Your task to perform on an android device: Show me productivity apps on the Play Store Image 0: 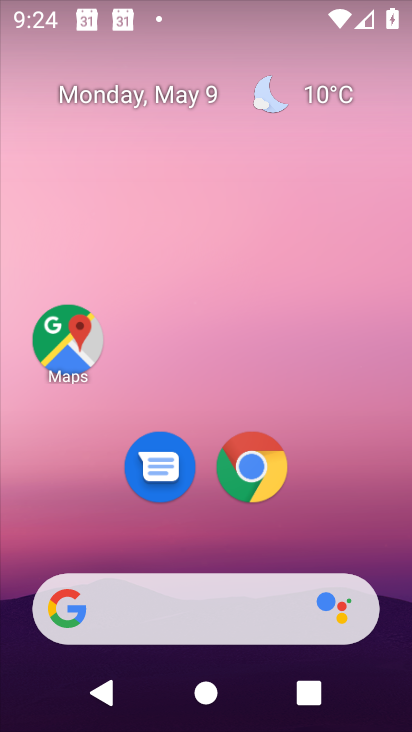
Step 0: drag from (365, 558) to (344, 31)
Your task to perform on an android device: Show me productivity apps on the Play Store Image 1: 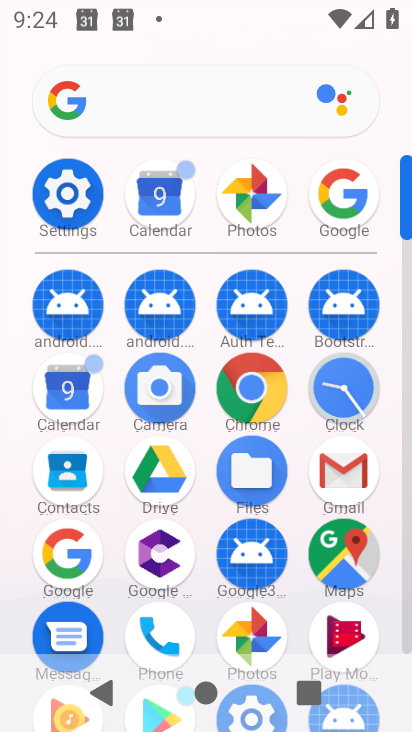
Step 1: click (408, 538)
Your task to perform on an android device: Show me productivity apps on the Play Store Image 2: 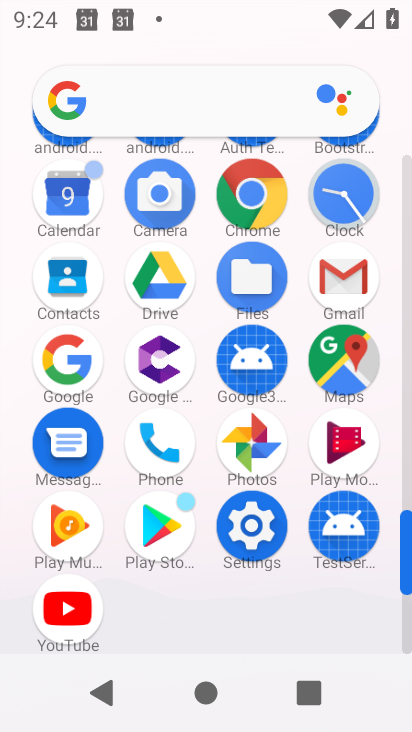
Step 2: click (158, 528)
Your task to perform on an android device: Show me productivity apps on the Play Store Image 3: 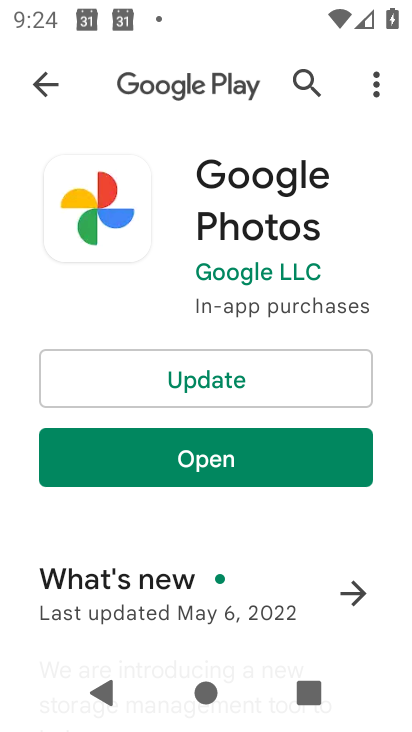
Step 3: click (34, 87)
Your task to perform on an android device: Show me productivity apps on the Play Store Image 4: 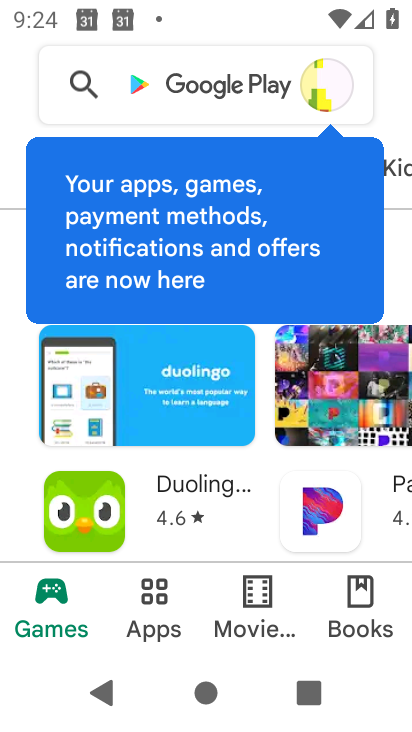
Step 4: click (144, 620)
Your task to perform on an android device: Show me productivity apps on the Play Store Image 5: 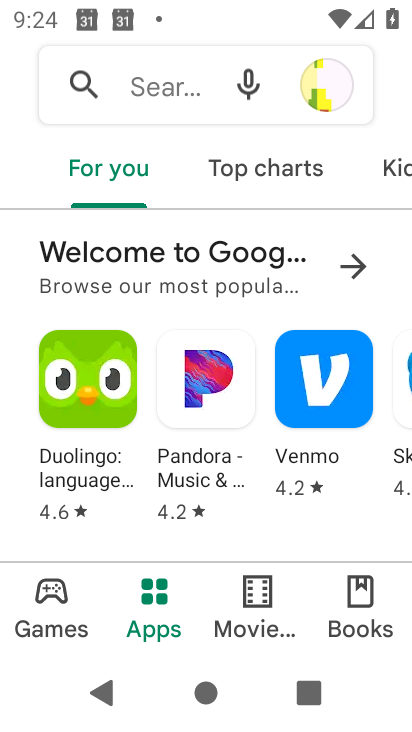
Step 5: drag from (324, 166) to (0, 249)
Your task to perform on an android device: Show me productivity apps on the Play Store Image 6: 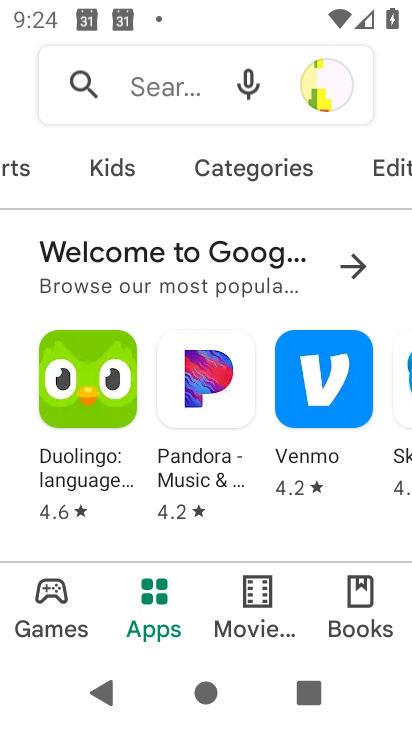
Step 6: click (259, 174)
Your task to perform on an android device: Show me productivity apps on the Play Store Image 7: 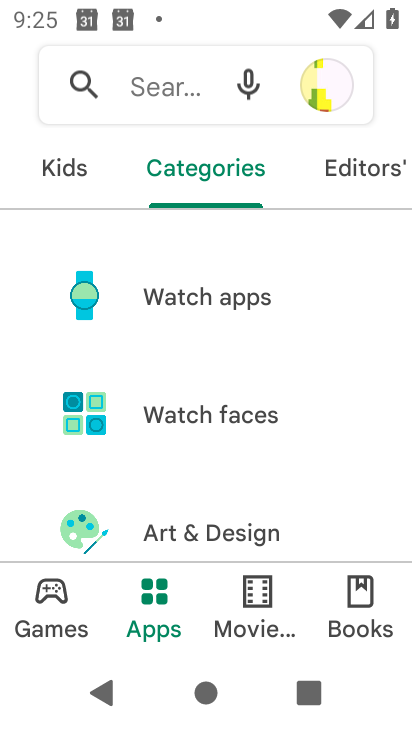
Step 7: drag from (304, 526) to (273, 135)
Your task to perform on an android device: Show me productivity apps on the Play Store Image 8: 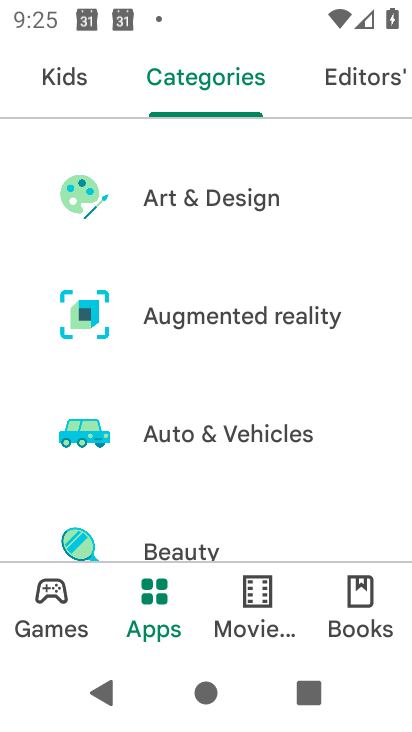
Step 8: drag from (278, 432) to (255, 95)
Your task to perform on an android device: Show me productivity apps on the Play Store Image 9: 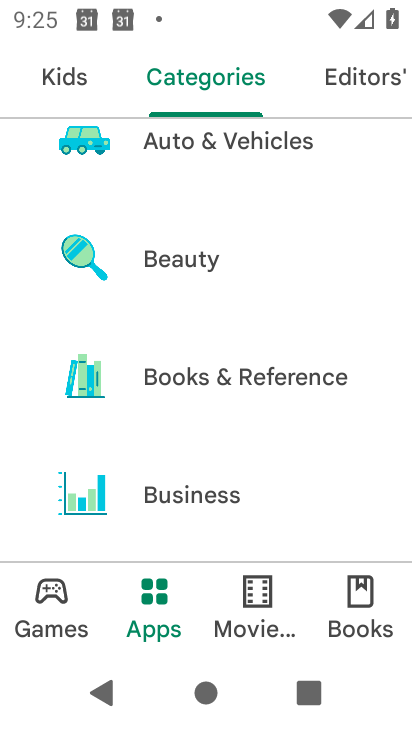
Step 9: drag from (224, 408) to (199, 84)
Your task to perform on an android device: Show me productivity apps on the Play Store Image 10: 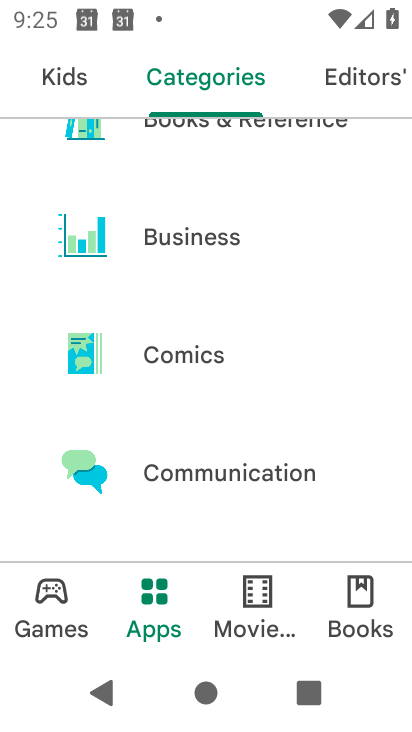
Step 10: drag from (205, 486) to (181, 134)
Your task to perform on an android device: Show me productivity apps on the Play Store Image 11: 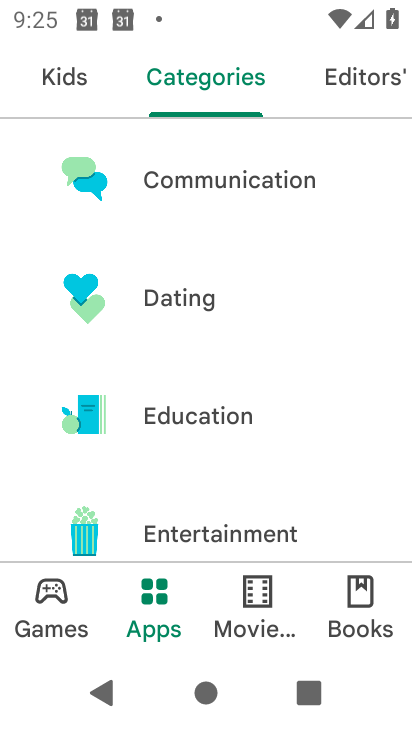
Step 11: drag from (197, 421) to (172, 121)
Your task to perform on an android device: Show me productivity apps on the Play Store Image 12: 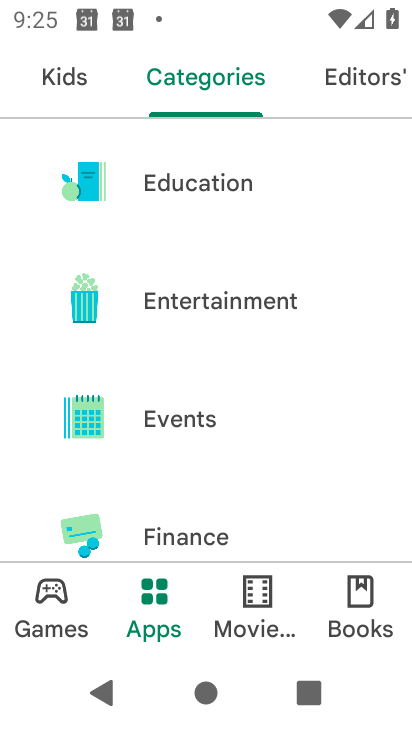
Step 12: drag from (181, 440) to (140, 83)
Your task to perform on an android device: Show me productivity apps on the Play Store Image 13: 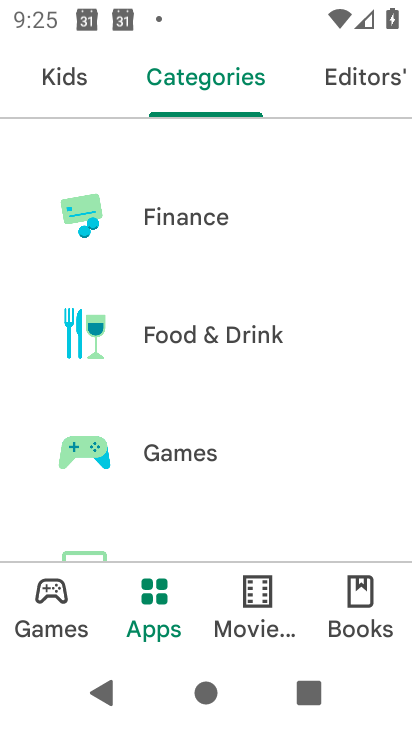
Step 13: drag from (190, 451) to (168, 95)
Your task to perform on an android device: Show me productivity apps on the Play Store Image 14: 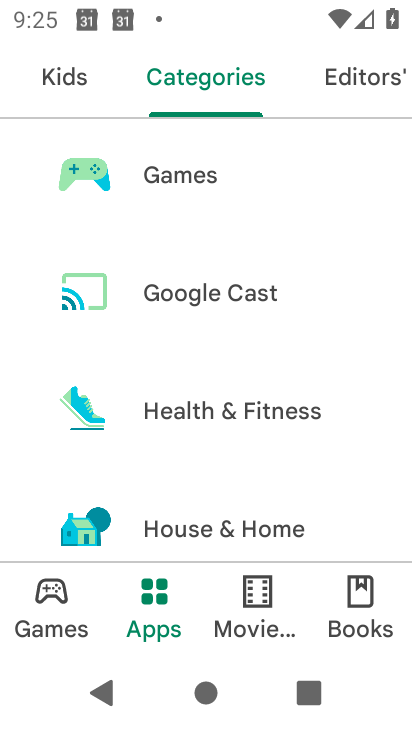
Step 14: drag from (218, 442) to (226, 38)
Your task to perform on an android device: Show me productivity apps on the Play Store Image 15: 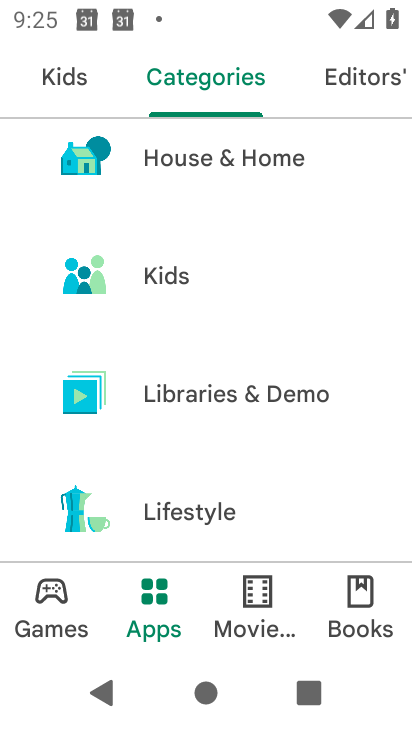
Step 15: drag from (222, 424) to (193, 44)
Your task to perform on an android device: Show me productivity apps on the Play Store Image 16: 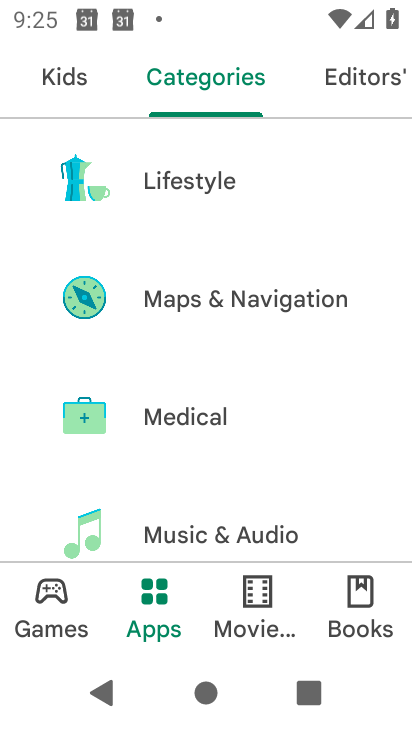
Step 16: drag from (188, 428) to (160, 136)
Your task to perform on an android device: Show me productivity apps on the Play Store Image 17: 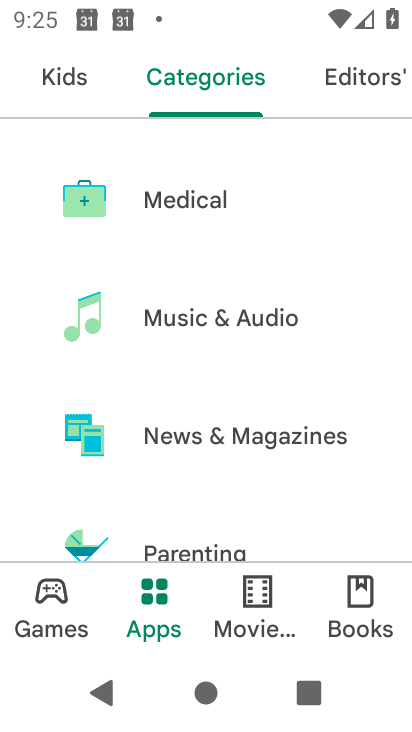
Step 17: drag from (178, 426) to (176, 155)
Your task to perform on an android device: Show me productivity apps on the Play Store Image 18: 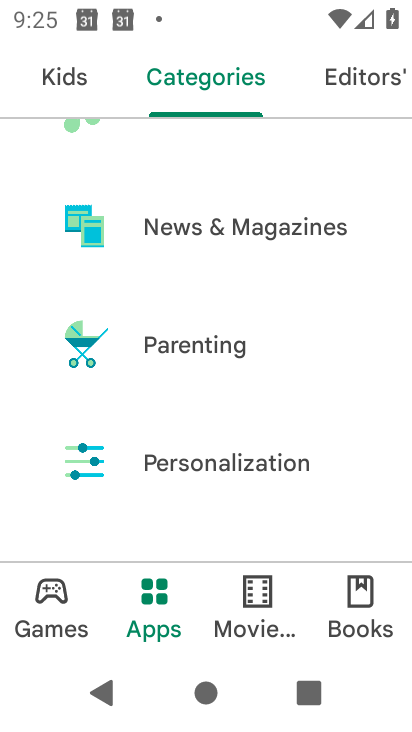
Step 18: drag from (195, 464) to (169, 95)
Your task to perform on an android device: Show me productivity apps on the Play Store Image 19: 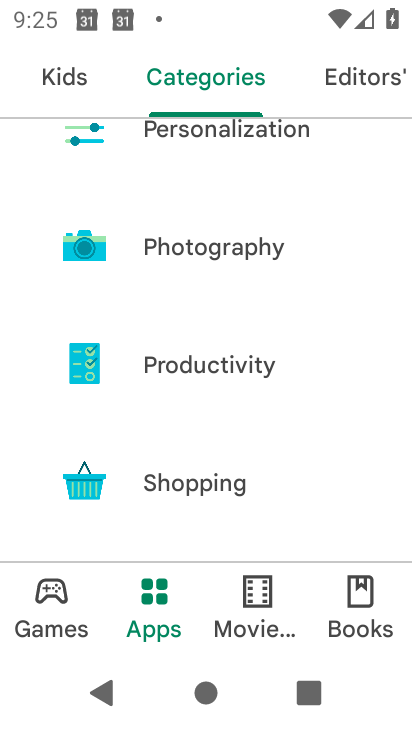
Step 19: click (189, 373)
Your task to perform on an android device: Show me productivity apps on the Play Store Image 20: 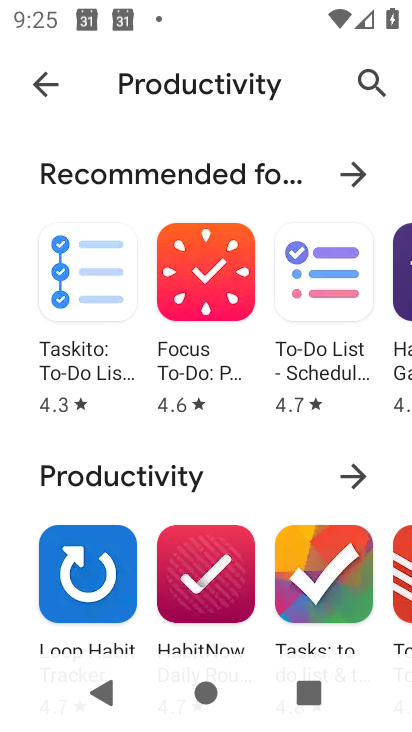
Step 20: task complete